Your task to perform on an android device: delete a single message in the gmail app Image 0: 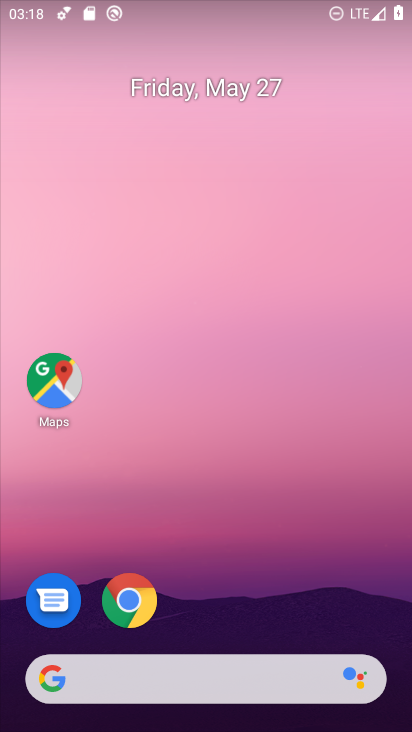
Step 0: drag from (229, 716) to (240, 130)
Your task to perform on an android device: delete a single message in the gmail app Image 1: 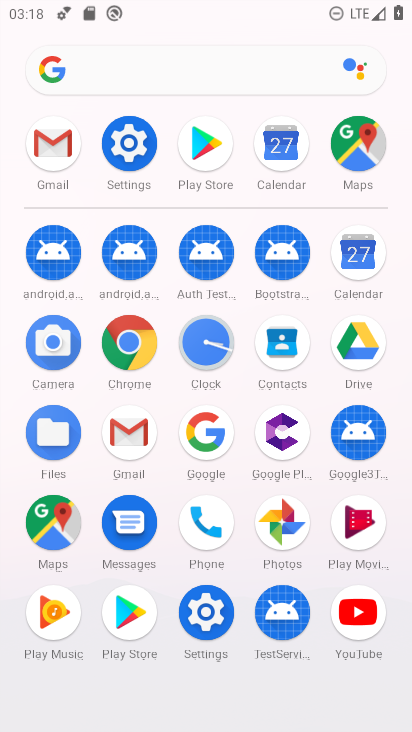
Step 1: click (122, 430)
Your task to perform on an android device: delete a single message in the gmail app Image 2: 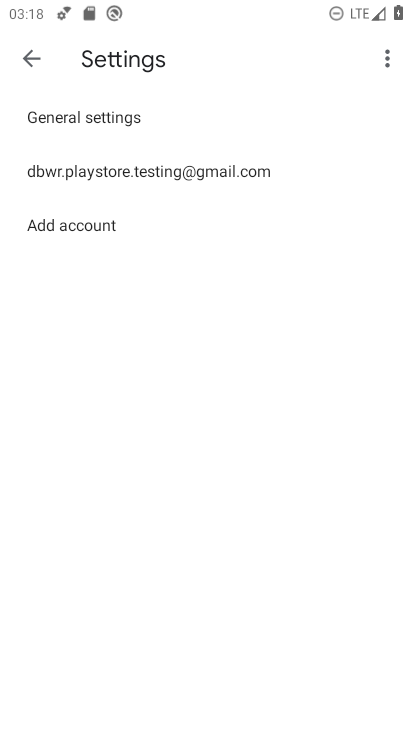
Step 2: click (141, 169)
Your task to perform on an android device: delete a single message in the gmail app Image 3: 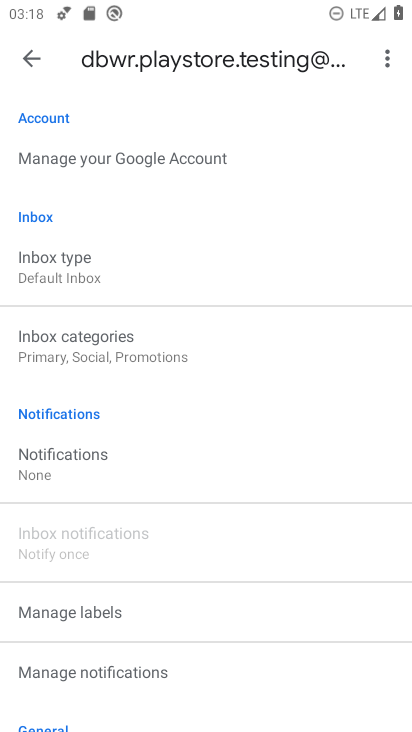
Step 3: click (31, 52)
Your task to perform on an android device: delete a single message in the gmail app Image 4: 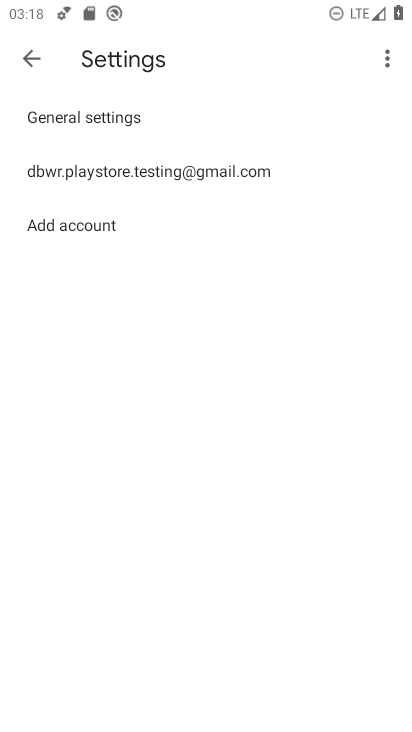
Step 4: click (31, 52)
Your task to perform on an android device: delete a single message in the gmail app Image 5: 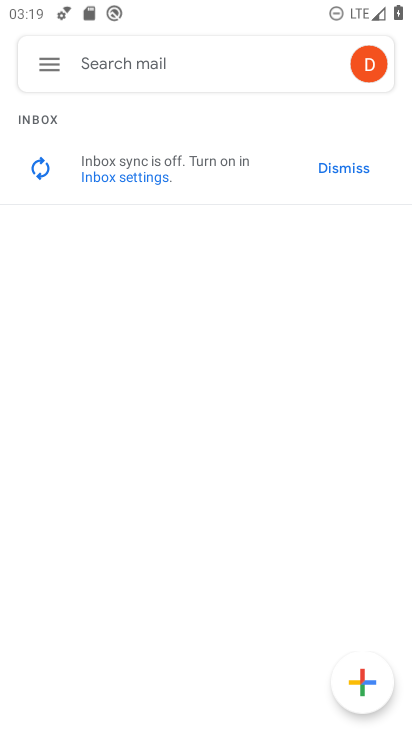
Step 5: task complete